Your task to perform on an android device: Open Google Image 0: 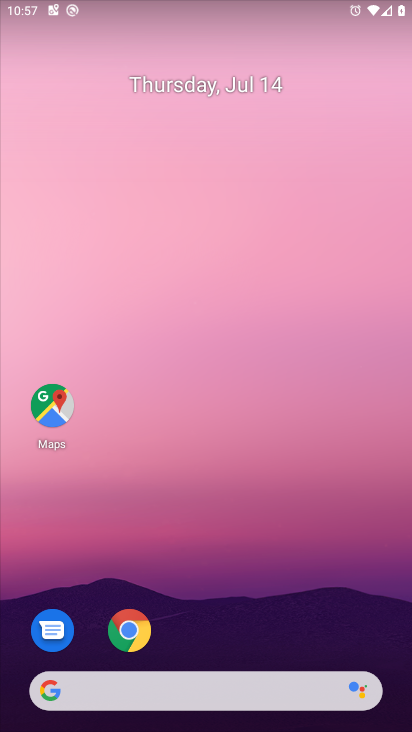
Step 0: click (124, 624)
Your task to perform on an android device: Open Google Image 1: 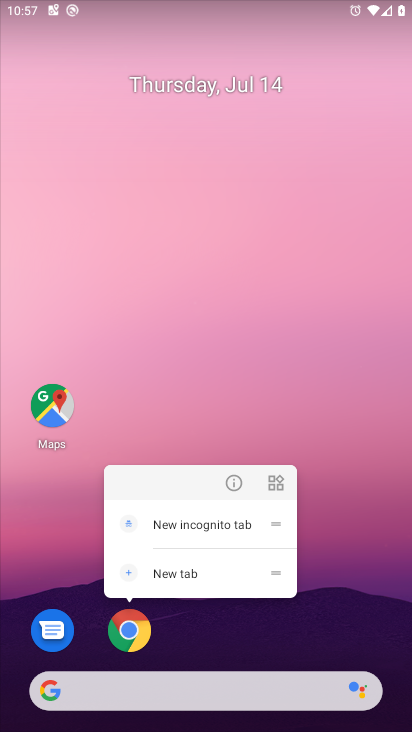
Step 1: click (142, 635)
Your task to perform on an android device: Open Google Image 2: 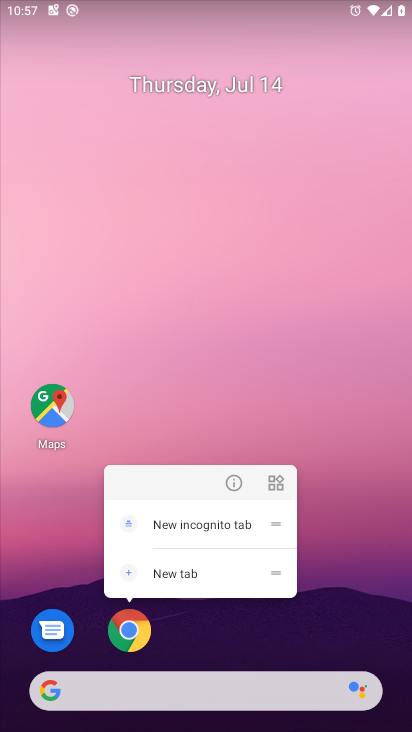
Step 2: click (141, 634)
Your task to perform on an android device: Open Google Image 3: 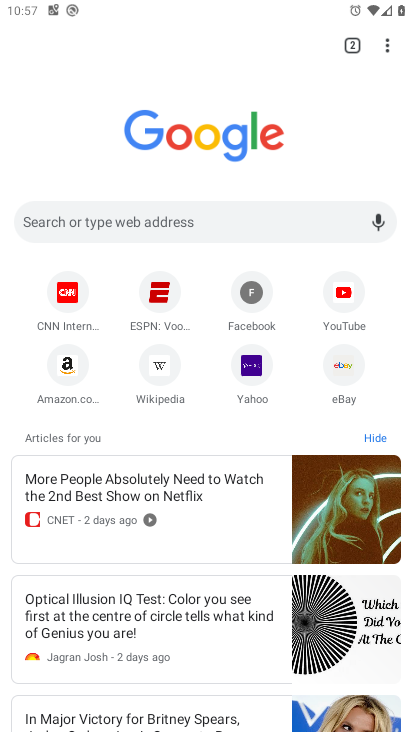
Step 3: task complete